Your task to perform on an android device: check battery use Image 0: 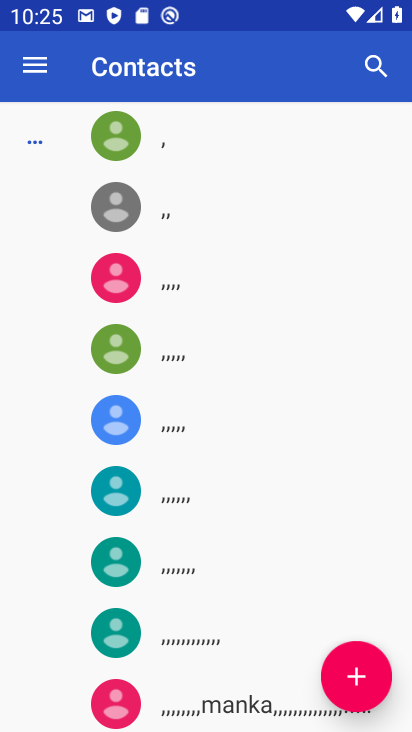
Step 0: press home button
Your task to perform on an android device: check battery use Image 1: 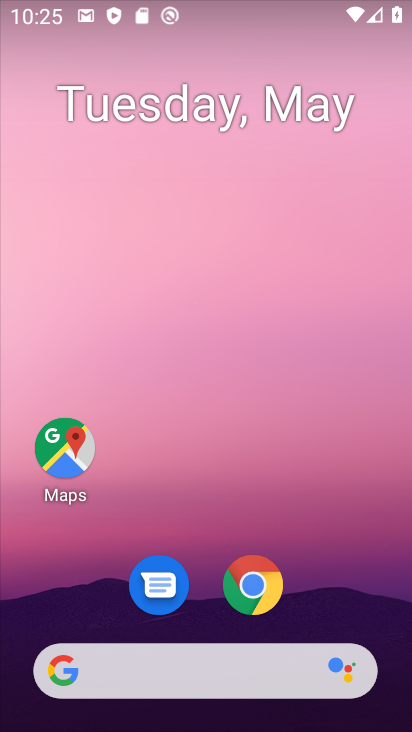
Step 1: drag from (324, 533) to (318, 8)
Your task to perform on an android device: check battery use Image 2: 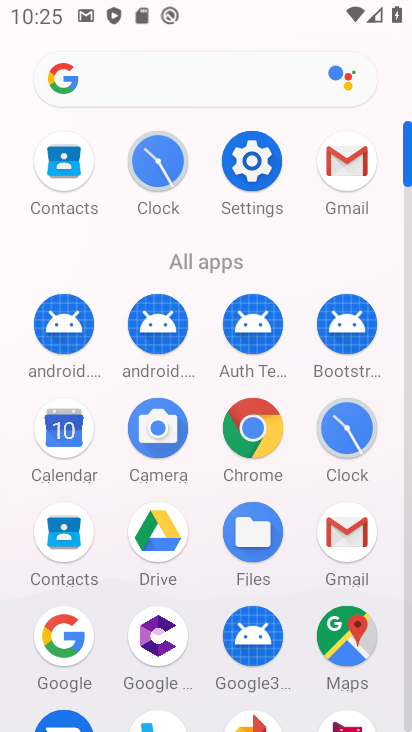
Step 2: click (252, 159)
Your task to perform on an android device: check battery use Image 3: 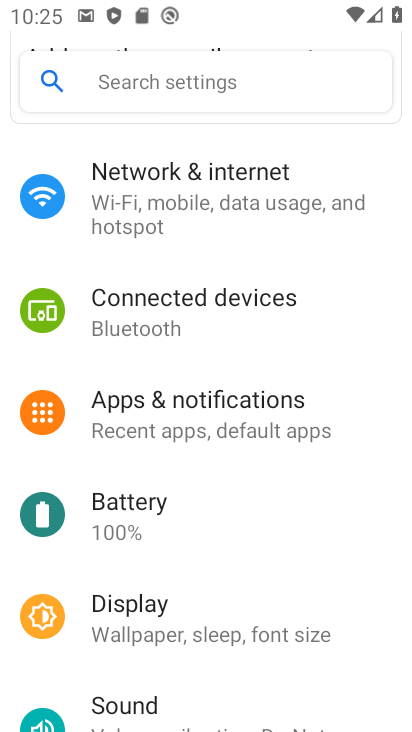
Step 3: click (167, 512)
Your task to perform on an android device: check battery use Image 4: 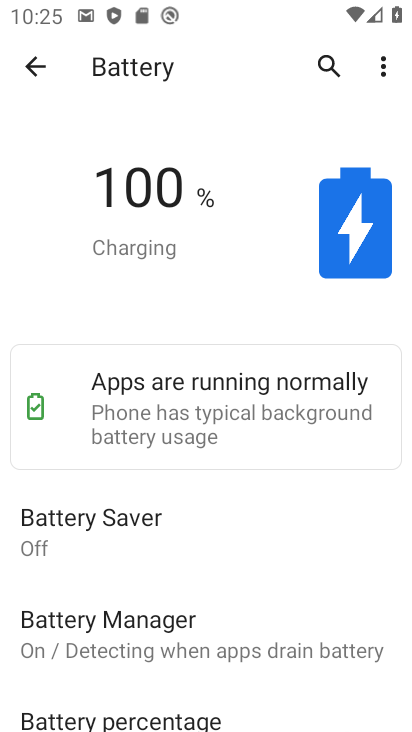
Step 4: task complete